Your task to perform on an android device: toggle javascript in the chrome app Image 0: 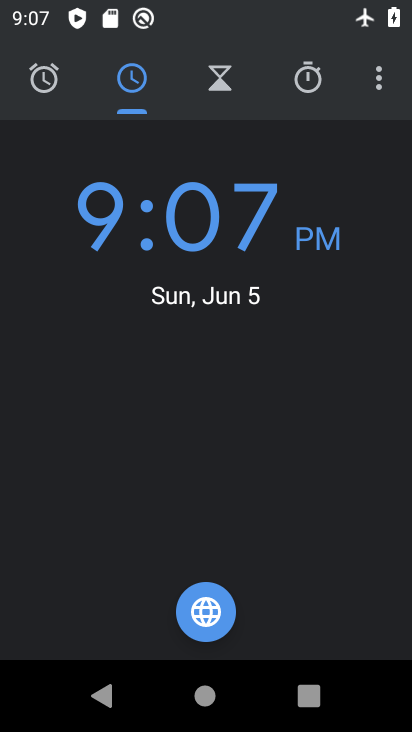
Step 0: press home button
Your task to perform on an android device: toggle javascript in the chrome app Image 1: 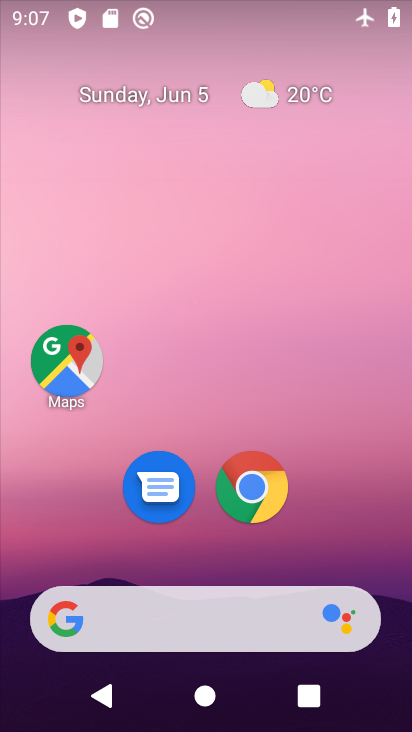
Step 1: drag from (208, 629) to (203, 322)
Your task to perform on an android device: toggle javascript in the chrome app Image 2: 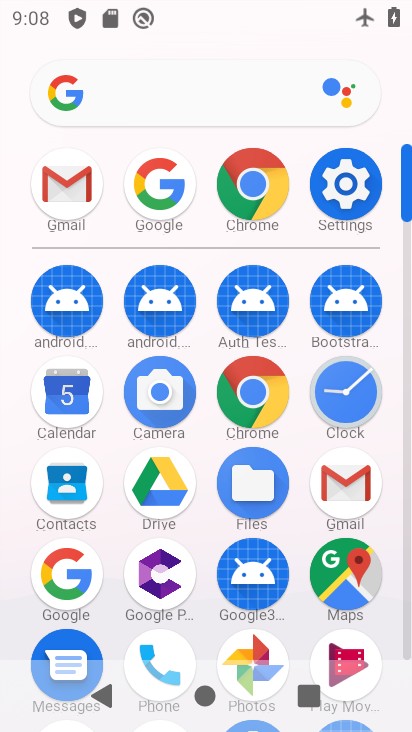
Step 2: click (259, 389)
Your task to perform on an android device: toggle javascript in the chrome app Image 3: 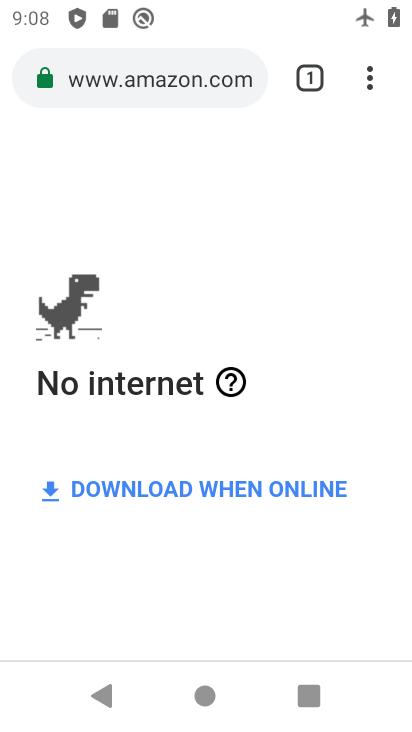
Step 3: click (368, 87)
Your task to perform on an android device: toggle javascript in the chrome app Image 4: 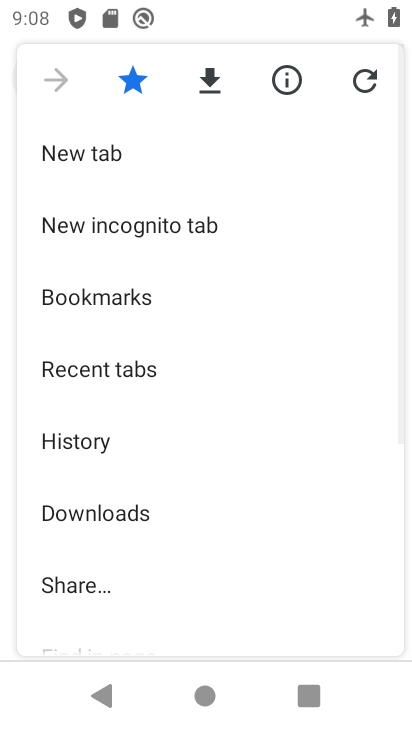
Step 4: drag from (164, 477) to (171, 408)
Your task to perform on an android device: toggle javascript in the chrome app Image 5: 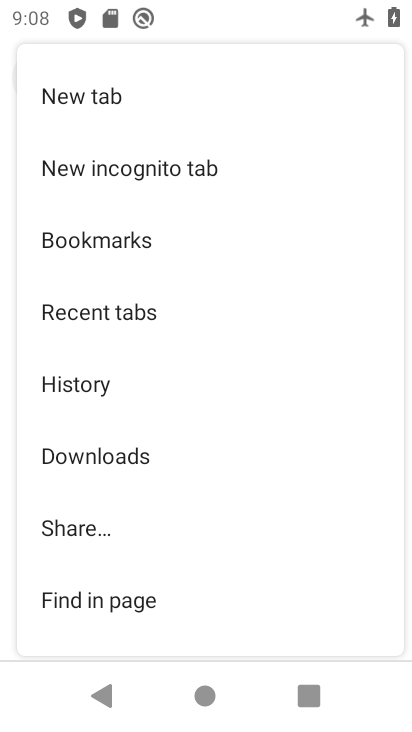
Step 5: drag from (185, 527) to (159, 316)
Your task to perform on an android device: toggle javascript in the chrome app Image 6: 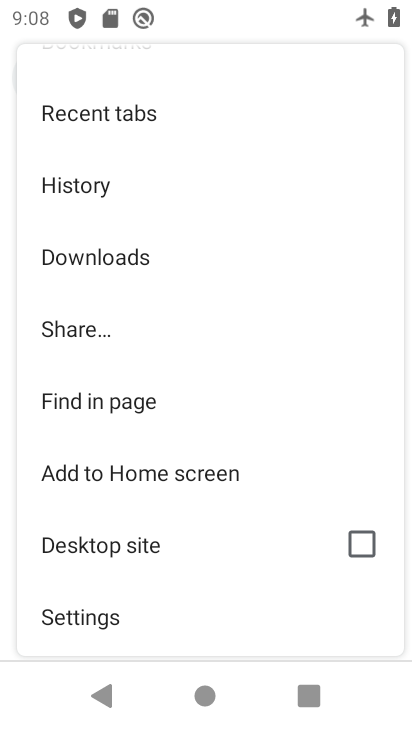
Step 6: click (110, 621)
Your task to perform on an android device: toggle javascript in the chrome app Image 7: 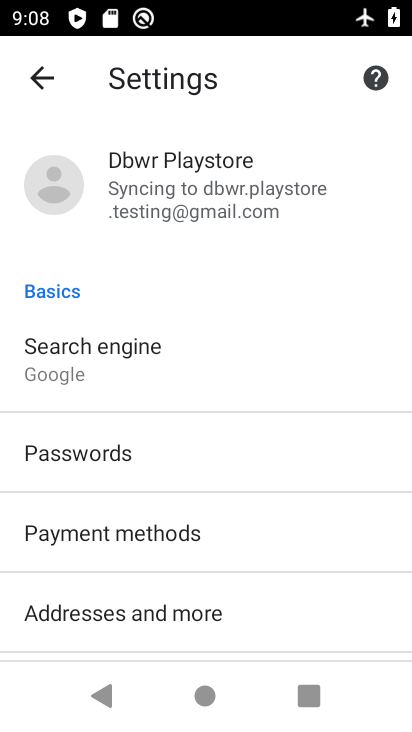
Step 7: drag from (186, 531) to (184, 296)
Your task to perform on an android device: toggle javascript in the chrome app Image 8: 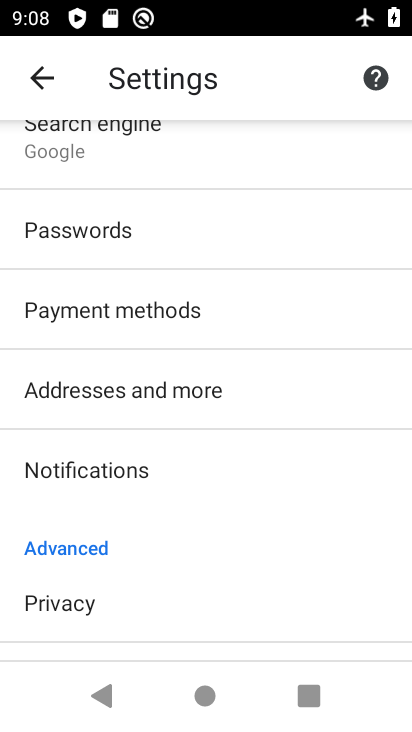
Step 8: drag from (124, 567) to (190, 285)
Your task to perform on an android device: toggle javascript in the chrome app Image 9: 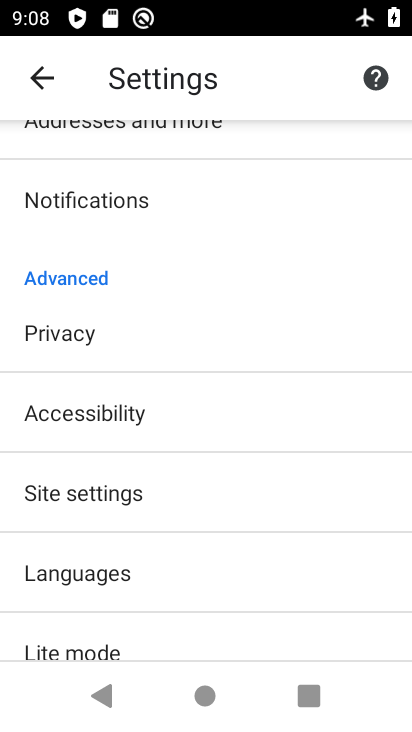
Step 9: click (116, 501)
Your task to perform on an android device: toggle javascript in the chrome app Image 10: 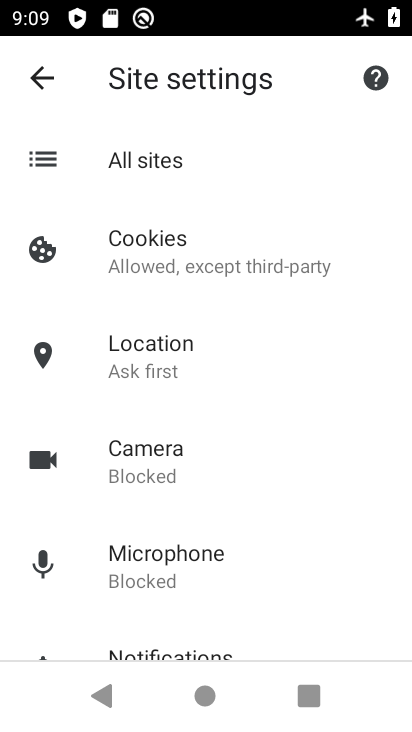
Step 10: drag from (207, 525) to (223, 435)
Your task to perform on an android device: toggle javascript in the chrome app Image 11: 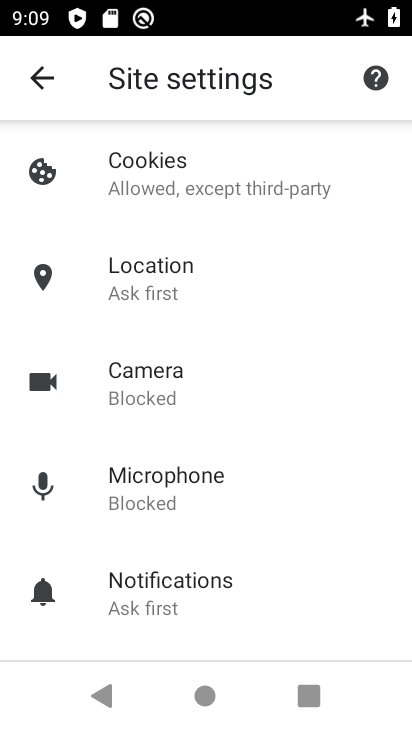
Step 11: drag from (194, 529) to (212, 420)
Your task to perform on an android device: toggle javascript in the chrome app Image 12: 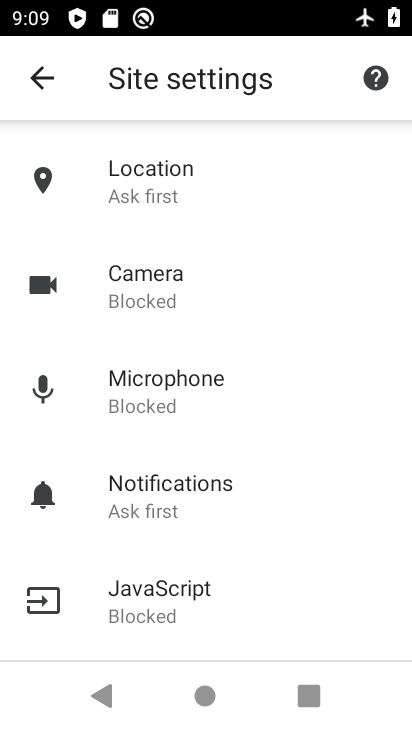
Step 12: click (170, 608)
Your task to perform on an android device: toggle javascript in the chrome app Image 13: 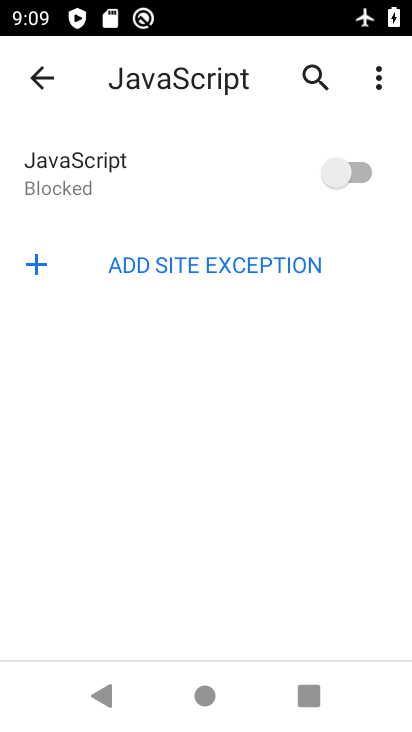
Step 13: click (350, 169)
Your task to perform on an android device: toggle javascript in the chrome app Image 14: 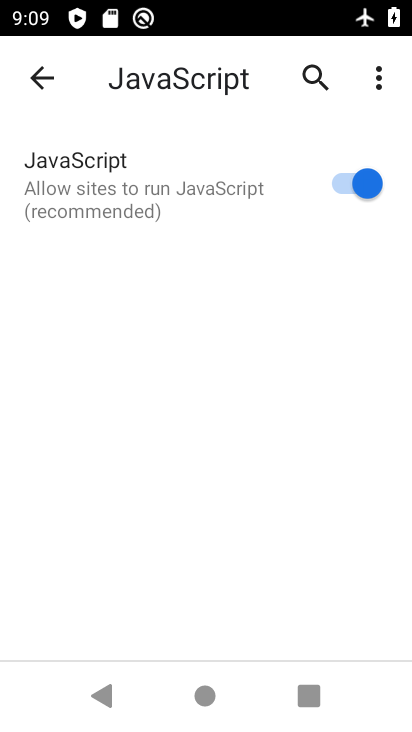
Step 14: task complete